Your task to perform on an android device: open a bookmark in the chrome app Image 0: 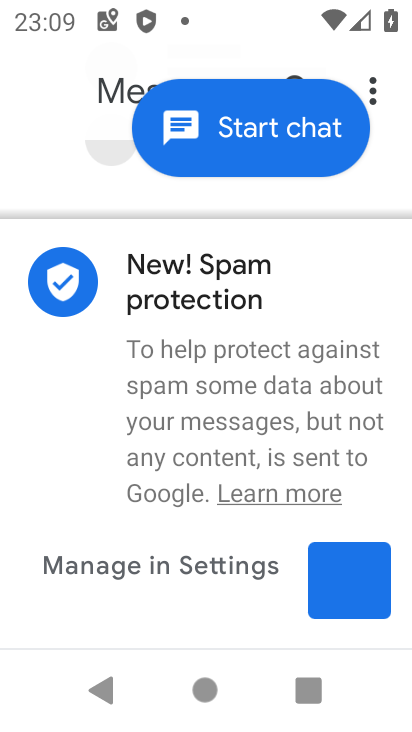
Step 0: press home button
Your task to perform on an android device: open a bookmark in the chrome app Image 1: 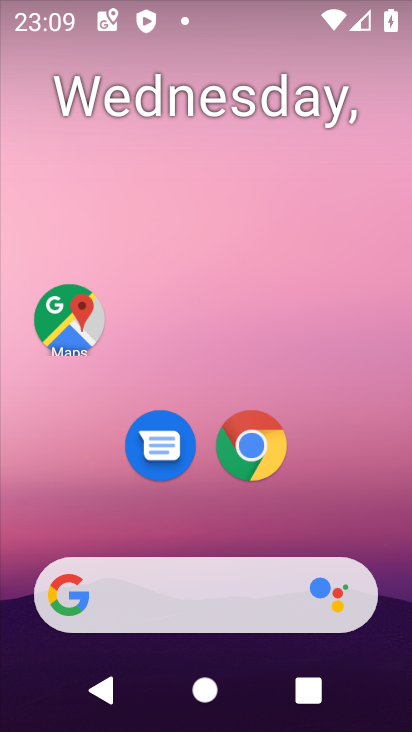
Step 1: click (237, 439)
Your task to perform on an android device: open a bookmark in the chrome app Image 2: 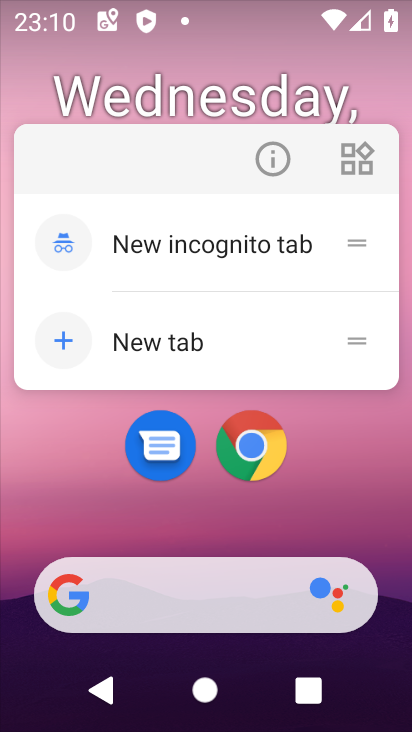
Step 2: click (267, 438)
Your task to perform on an android device: open a bookmark in the chrome app Image 3: 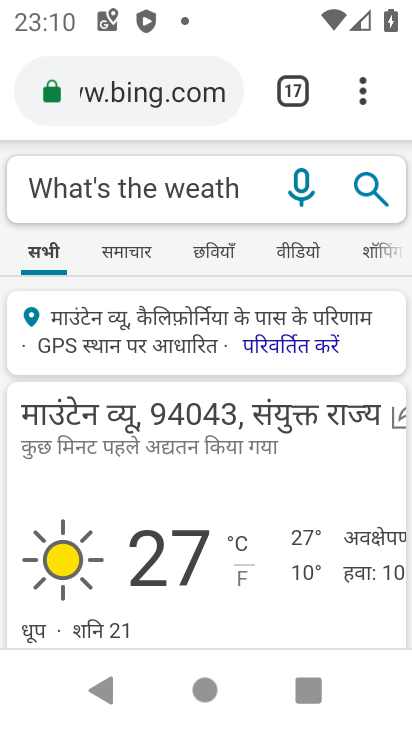
Step 3: click (361, 103)
Your task to perform on an android device: open a bookmark in the chrome app Image 4: 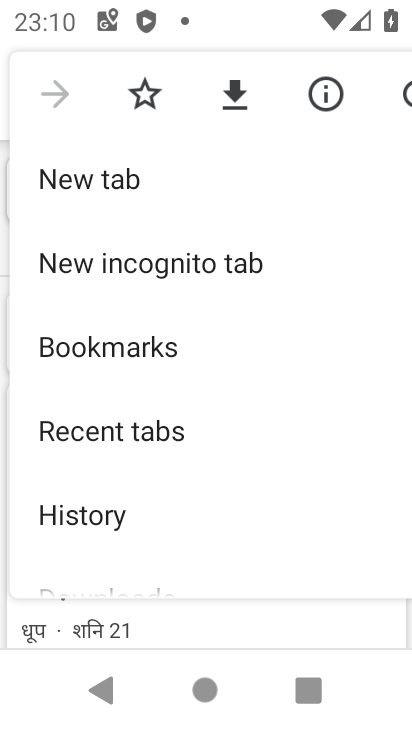
Step 4: click (154, 337)
Your task to perform on an android device: open a bookmark in the chrome app Image 5: 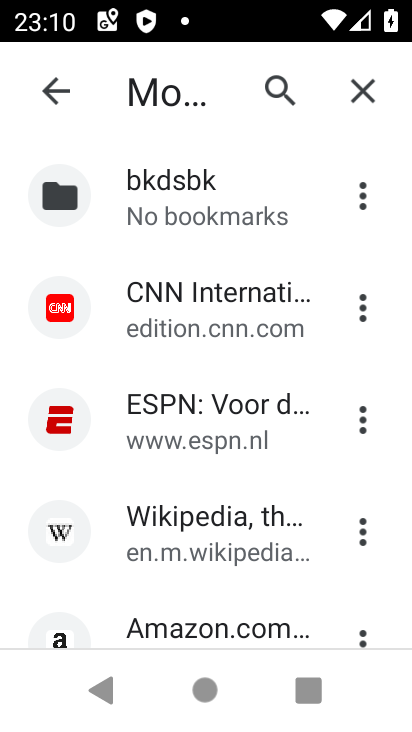
Step 5: task complete